Your task to perform on an android device: add a label to a message in the gmail app Image 0: 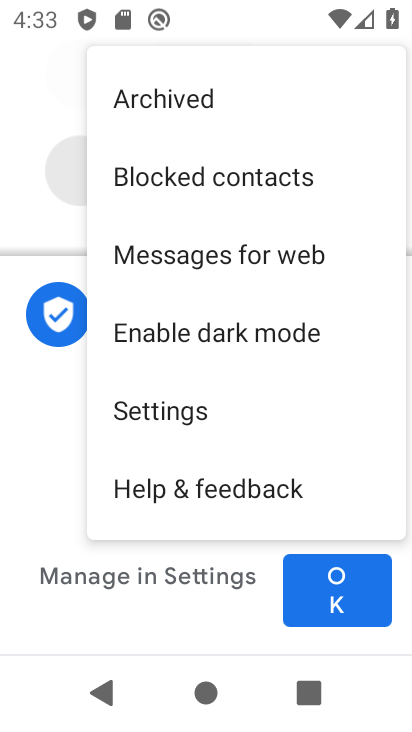
Step 0: press home button
Your task to perform on an android device: add a label to a message in the gmail app Image 1: 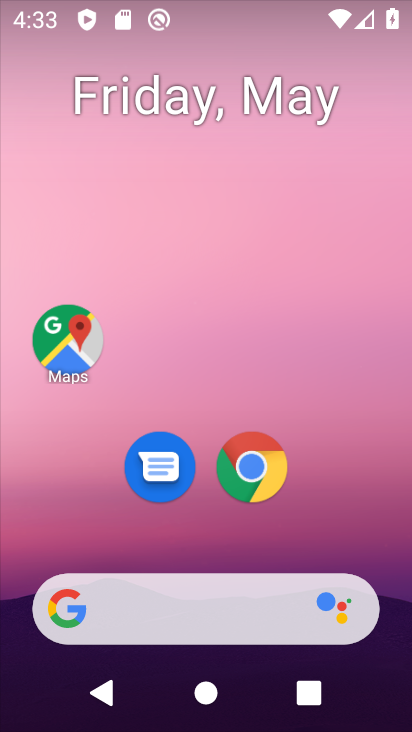
Step 1: drag from (329, 496) to (313, 146)
Your task to perform on an android device: add a label to a message in the gmail app Image 2: 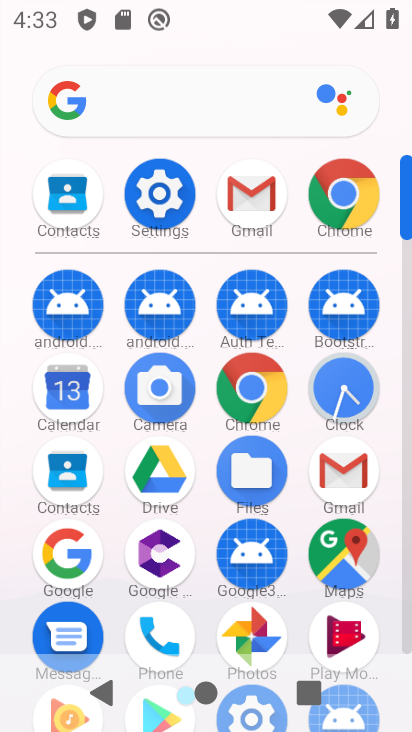
Step 2: click (251, 195)
Your task to perform on an android device: add a label to a message in the gmail app Image 3: 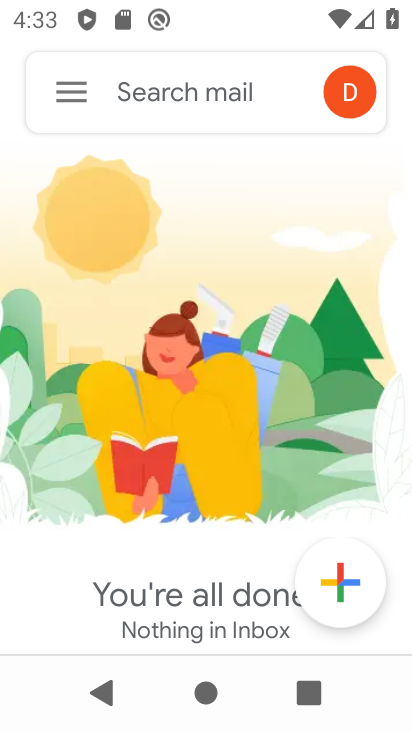
Step 3: click (72, 80)
Your task to perform on an android device: add a label to a message in the gmail app Image 4: 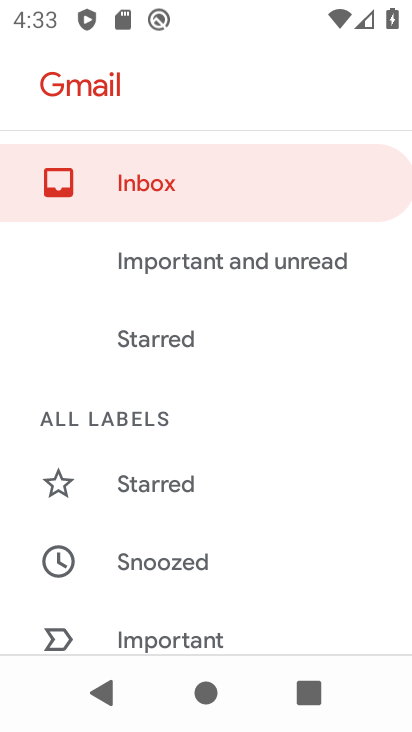
Step 4: drag from (207, 592) to (320, 82)
Your task to perform on an android device: add a label to a message in the gmail app Image 5: 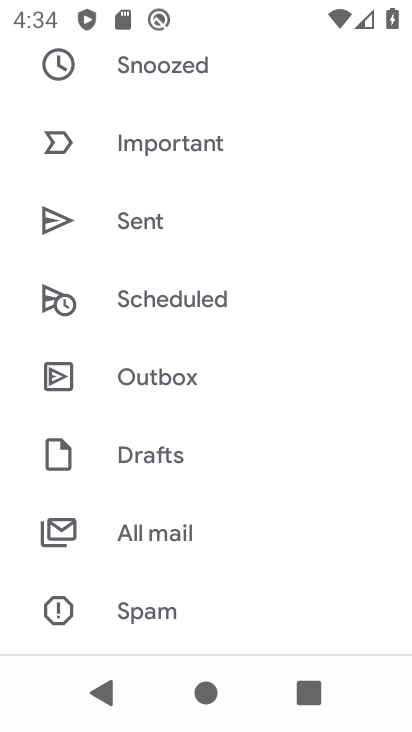
Step 5: click (165, 517)
Your task to perform on an android device: add a label to a message in the gmail app Image 6: 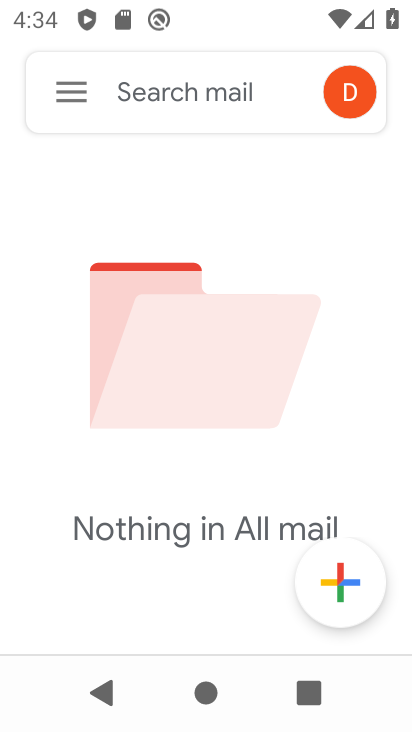
Step 6: task complete